Your task to perform on an android device: Open Amazon Image 0: 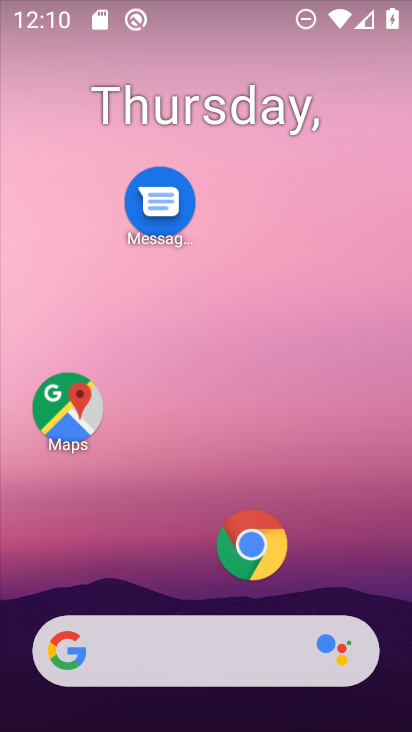
Step 0: click (216, 560)
Your task to perform on an android device: Open Amazon Image 1: 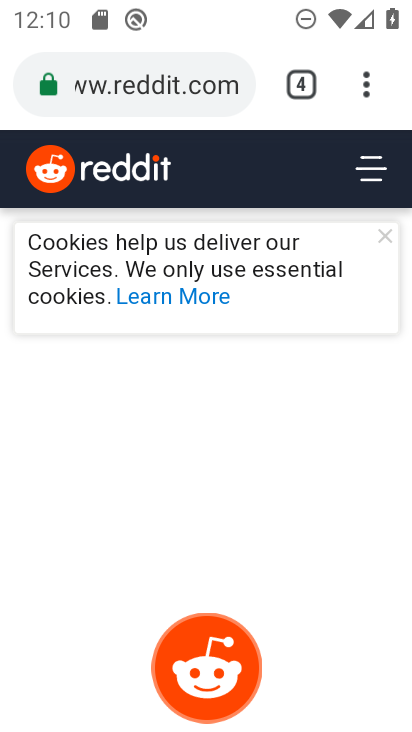
Step 1: click (297, 91)
Your task to perform on an android device: Open Amazon Image 2: 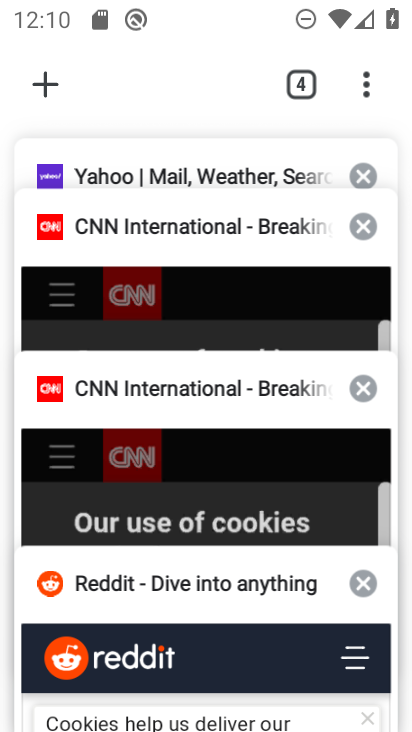
Step 2: click (55, 76)
Your task to perform on an android device: Open Amazon Image 3: 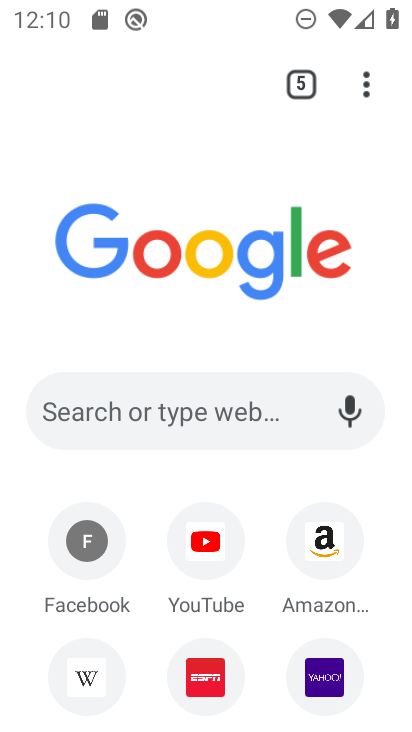
Step 3: click (308, 577)
Your task to perform on an android device: Open Amazon Image 4: 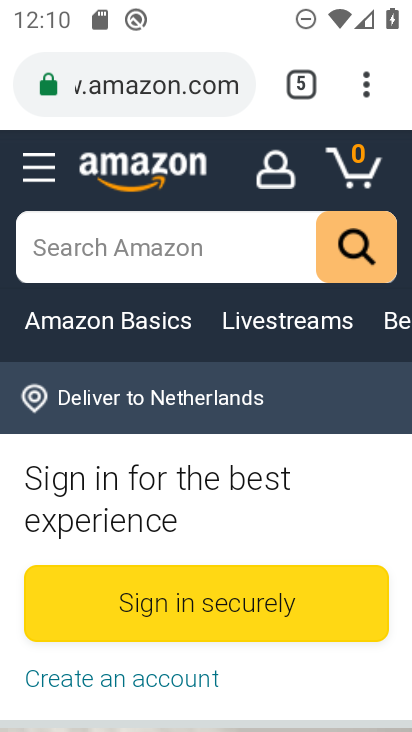
Step 4: task complete